Your task to perform on an android device: Toggle the flashlight Image 0: 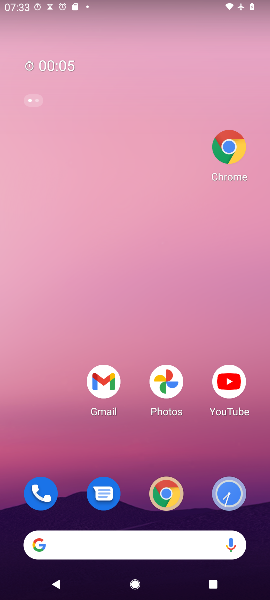
Step 0: press home button
Your task to perform on an android device: Toggle the flashlight Image 1: 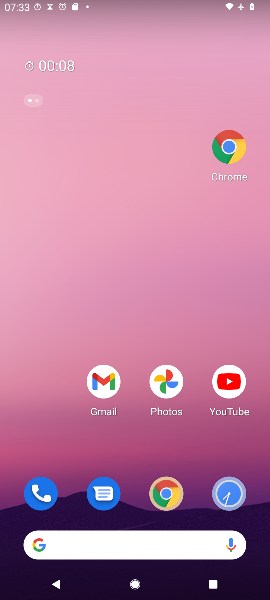
Step 1: drag from (126, 1) to (163, 416)
Your task to perform on an android device: Toggle the flashlight Image 2: 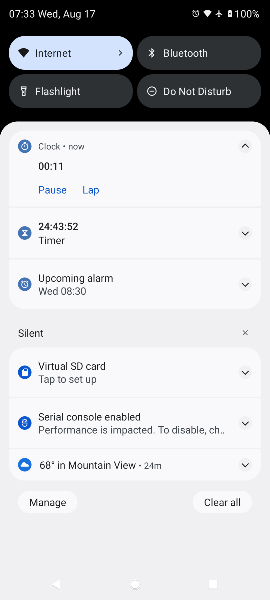
Step 2: click (50, 96)
Your task to perform on an android device: Toggle the flashlight Image 3: 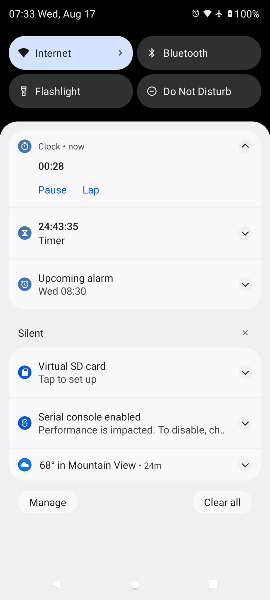
Step 3: task complete